Your task to perform on an android device: Go to Yahoo.com Image 0: 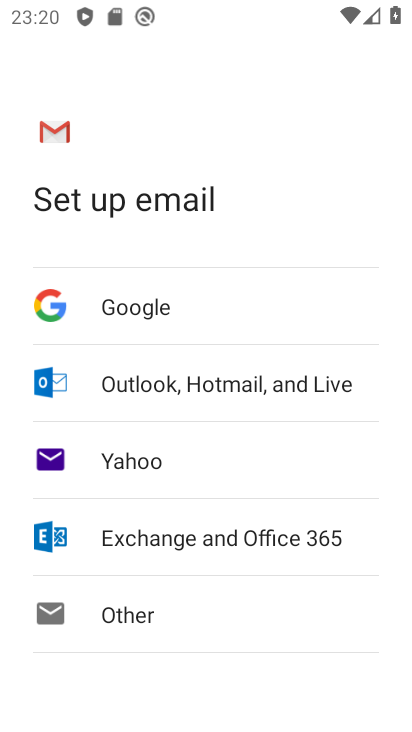
Step 0: press home button
Your task to perform on an android device: Go to Yahoo.com Image 1: 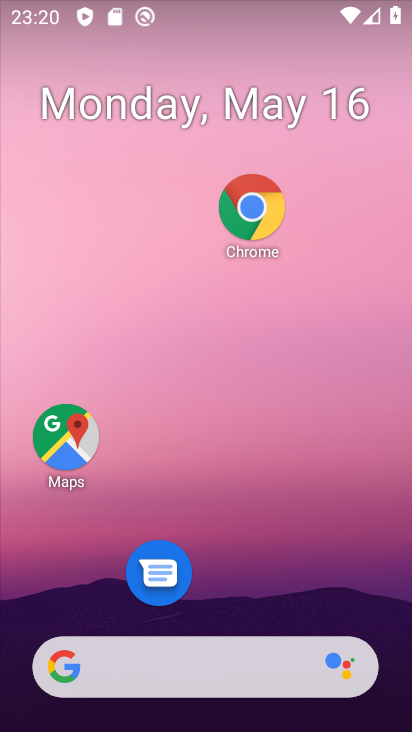
Step 1: drag from (225, 674) to (222, 68)
Your task to perform on an android device: Go to Yahoo.com Image 2: 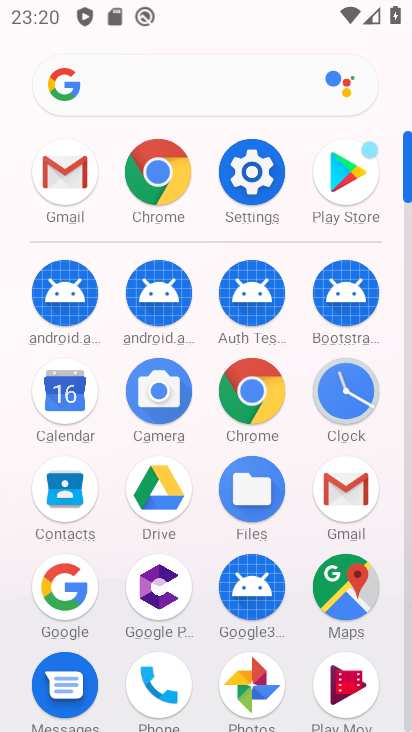
Step 2: click (261, 393)
Your task to perform on an android device: Go to Yahoo.com Image 3: 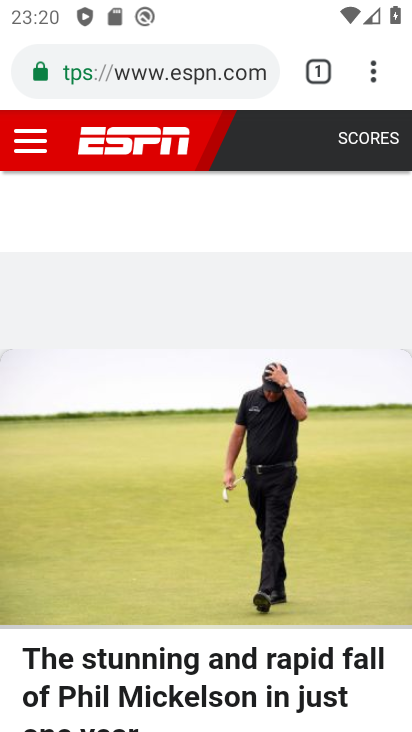
Step 3: click (250, 62)
Your task to perform on an android device: Go to Yahoo.com Image 4: 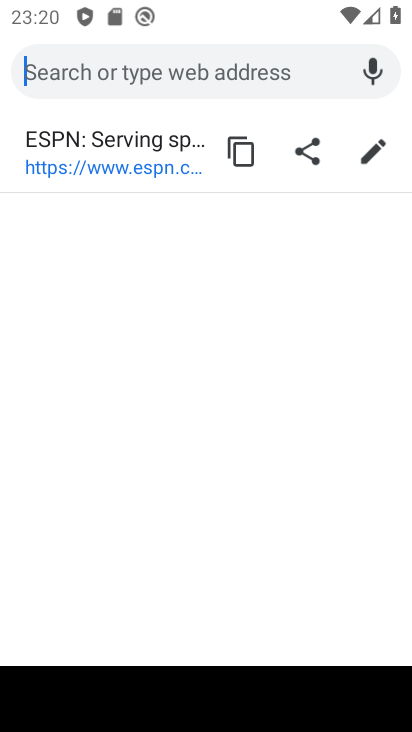
Step 4: type "yahoo.com"
Your task to perform on an android device: Go to Yahoo.com Image 5: 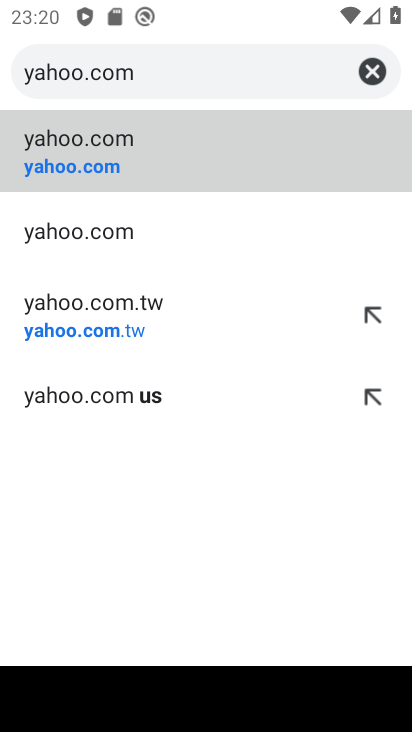
Step 5: click (125, 157)
Your task to perform on an android device: Go to Yahoo.com Image 6: 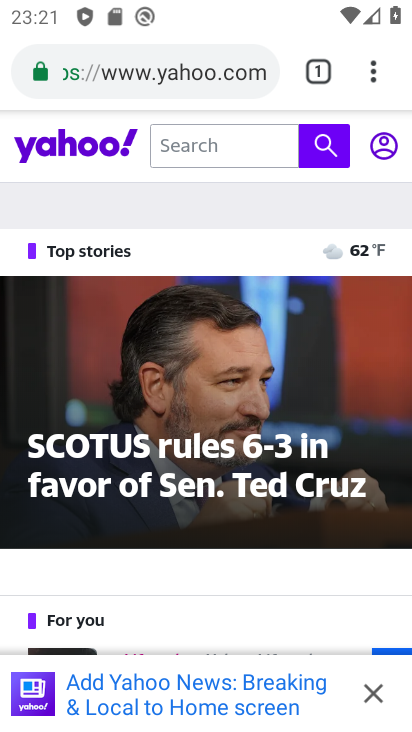
Step 6: task complete